Your task to perform on an android device: open a new tab in the chrome app Image 0: 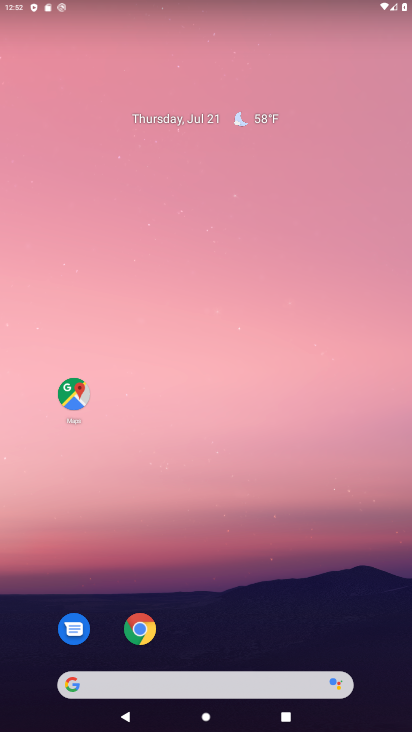
Step 0: click (138, 630)
Your task to perform on an android device: open a new tab in the chrome app Image 1: 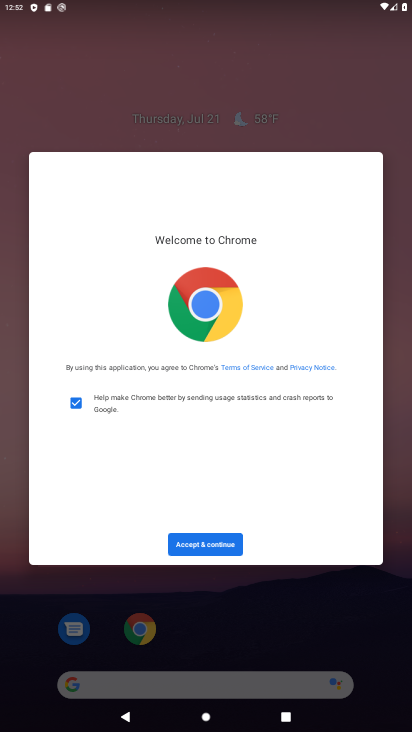
Step 1: click (212, 545)
Your task to perform on an android device: open a new tab in the chrome app Image 2: 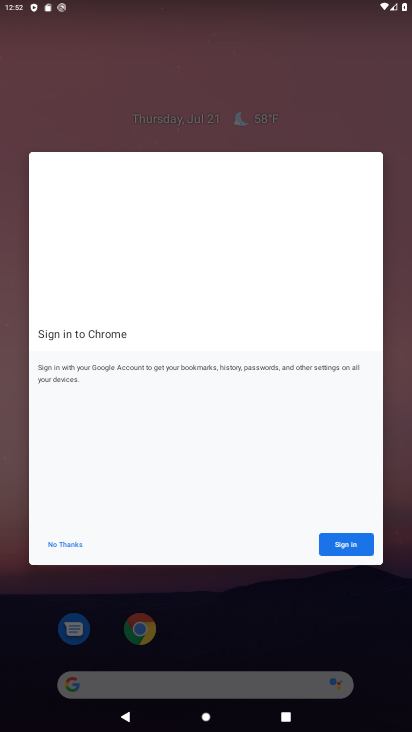
Step 2: click (67, 542)
Your task to perform on an android device: open a new tab in the chrome app Image 3: 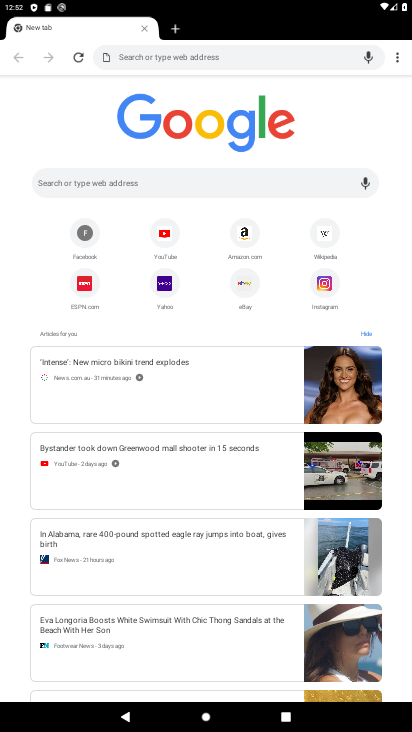
Step 3: click (396, 55)
Your task to perform on an android device: open a new tab in the chrome app Image 4: 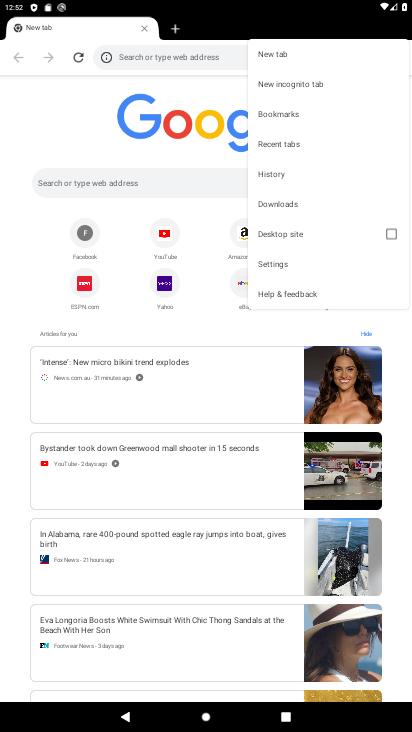
Step 4: click (279, 55)
Your task to perform on an android device: open a new tab in the chrome app Image 5: 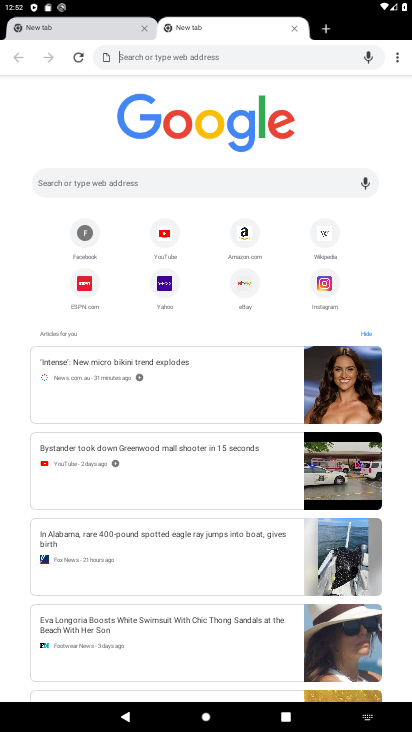
Step 5: task complete